Your task to perform on an android device: add a contact Image 0: 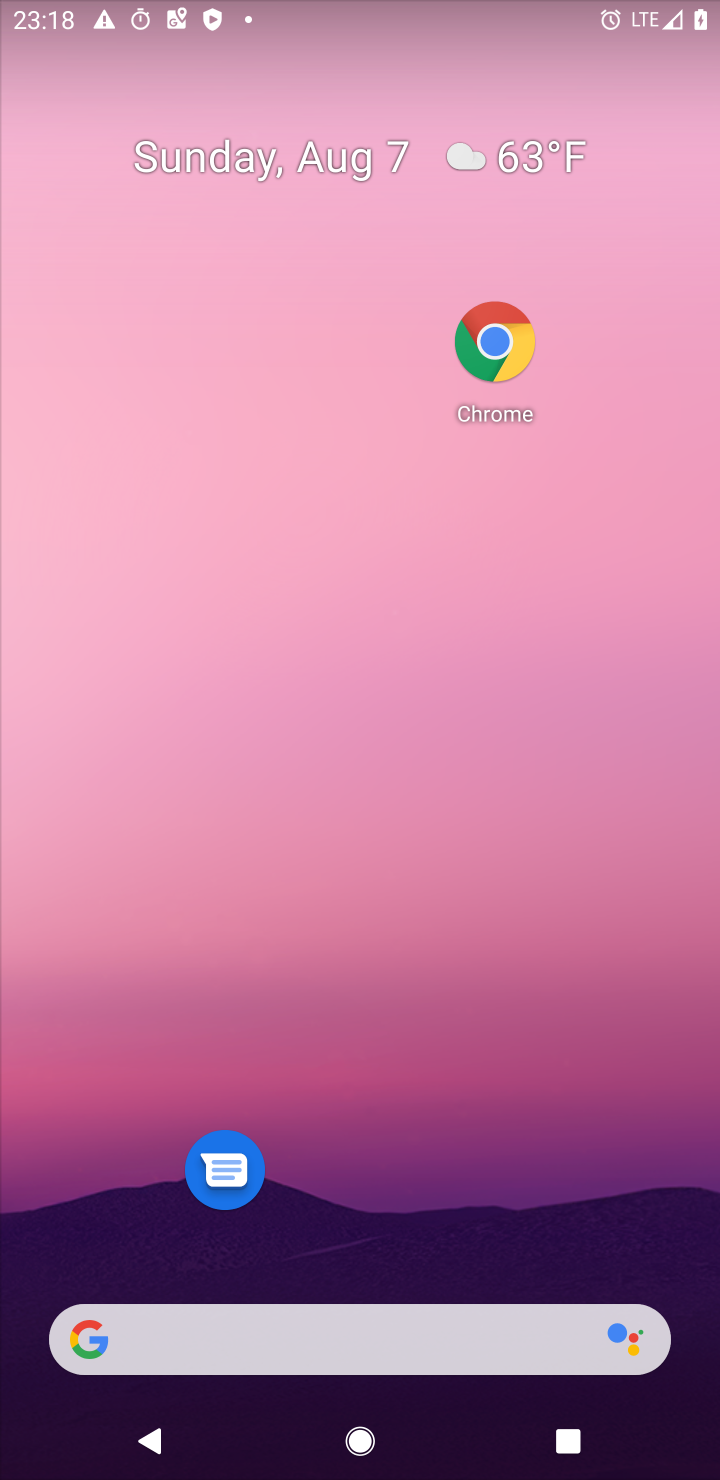
Step 0: drag from (252, 1338) to (391, 35)
Your task to perform on an android device: add a contact Image 1: 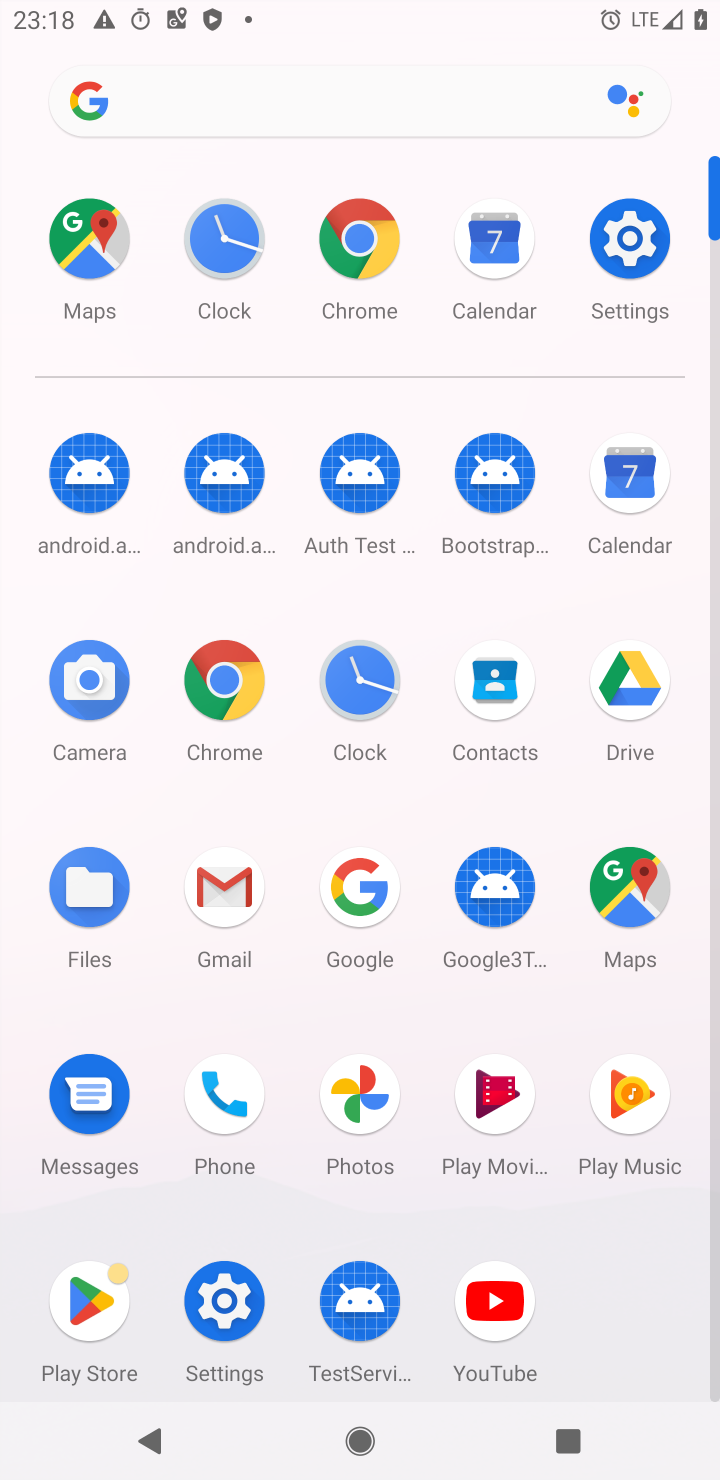
Step 1: click (479, 678)
Your task to perform on an android device: add a contact Image 2: 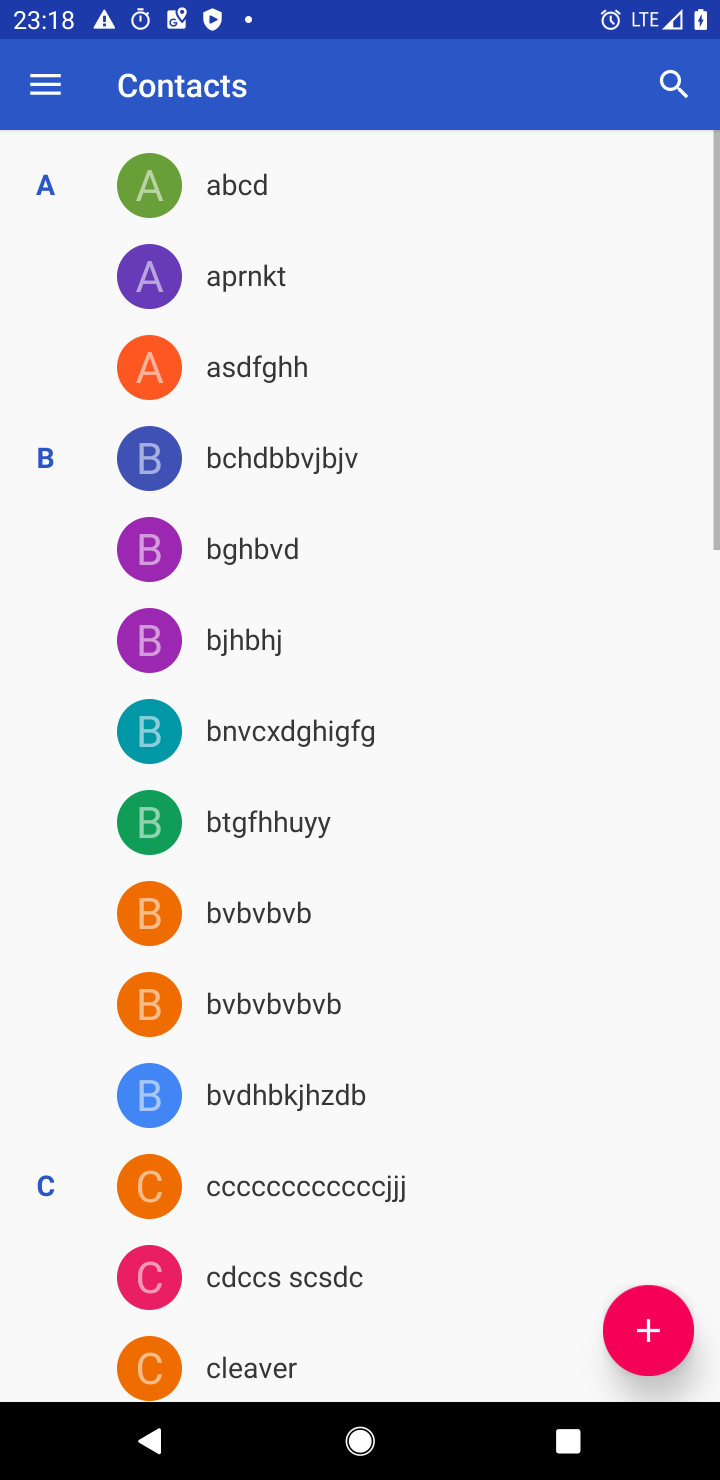
Step 2: click (655, 1314)
Your task to perform on an android device: add a contact Image 3: 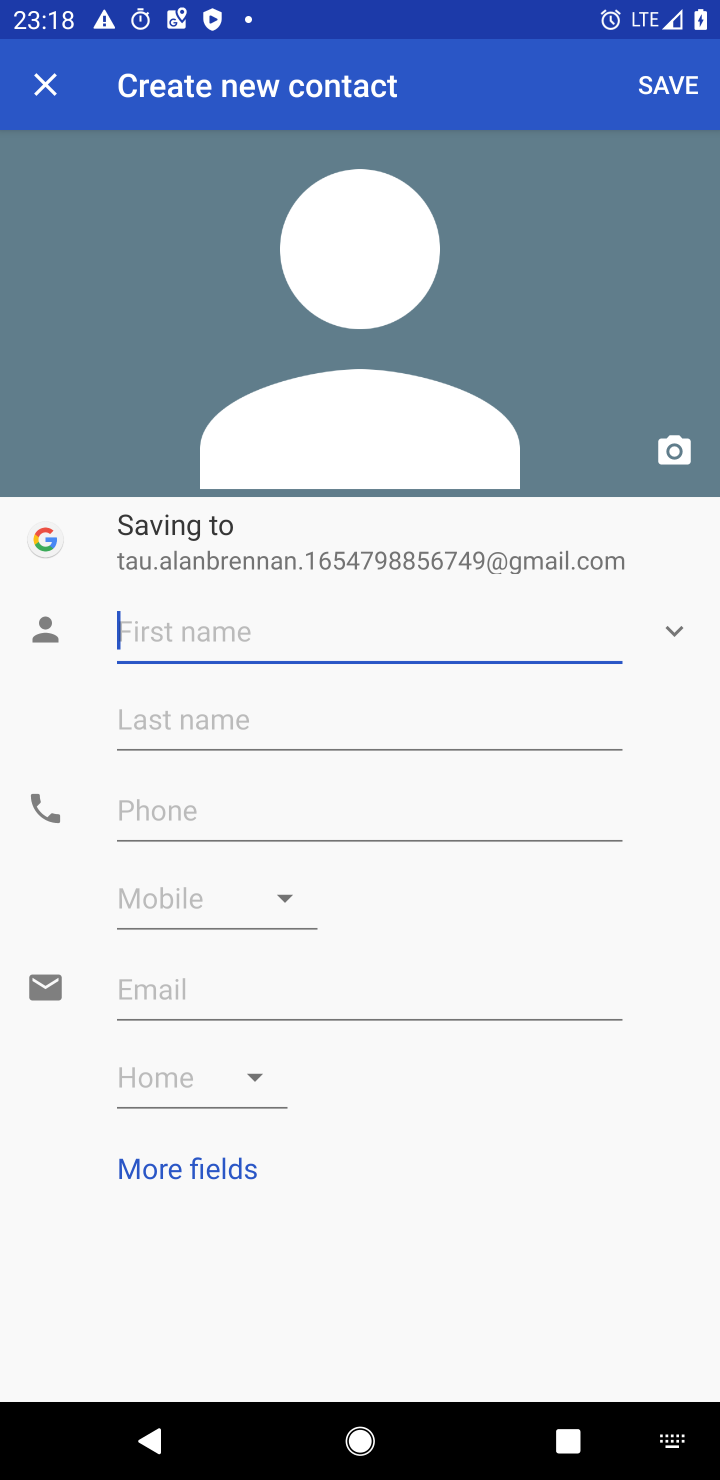
Step 3: type "priya"
Your task to perform on an android device: add a contact Image 4: 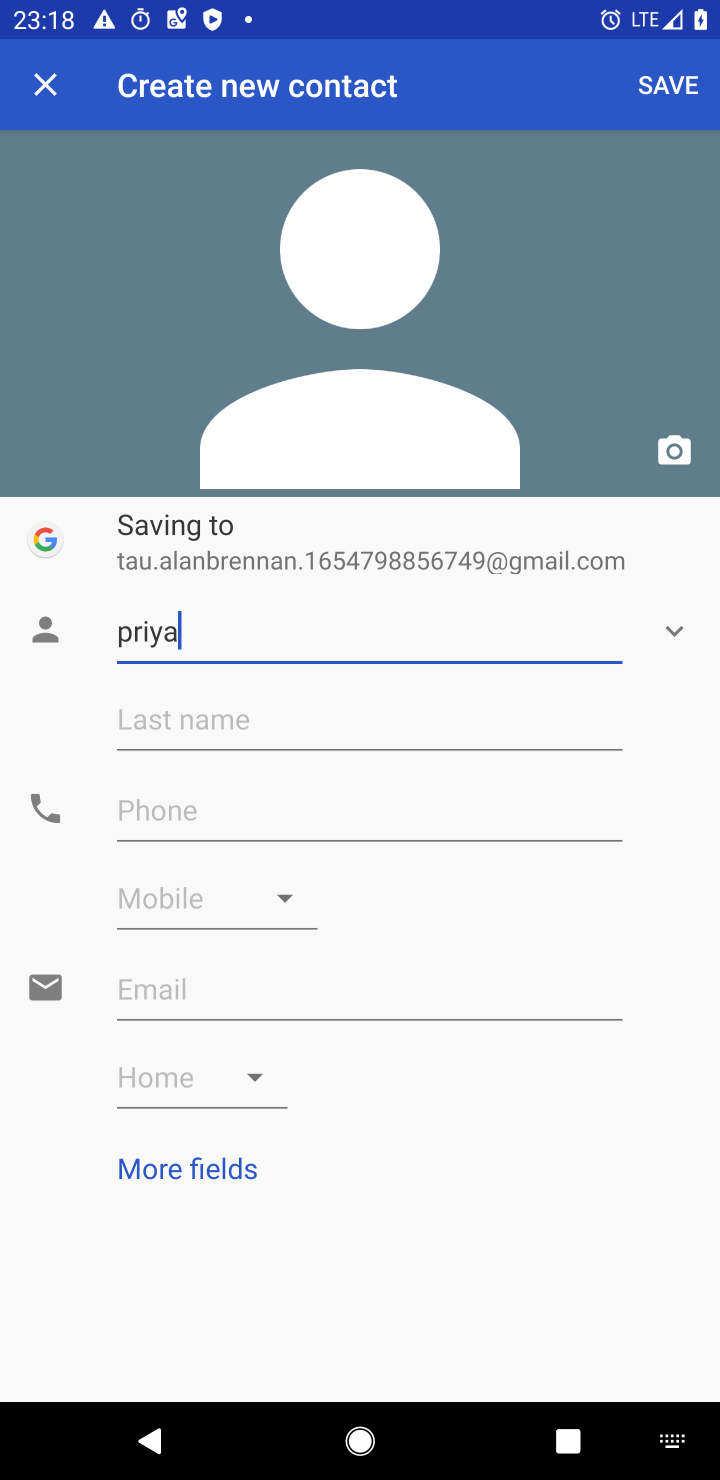
Step 4: click (509, 816)
Your task to perform on an android device: add a contact Image 5: 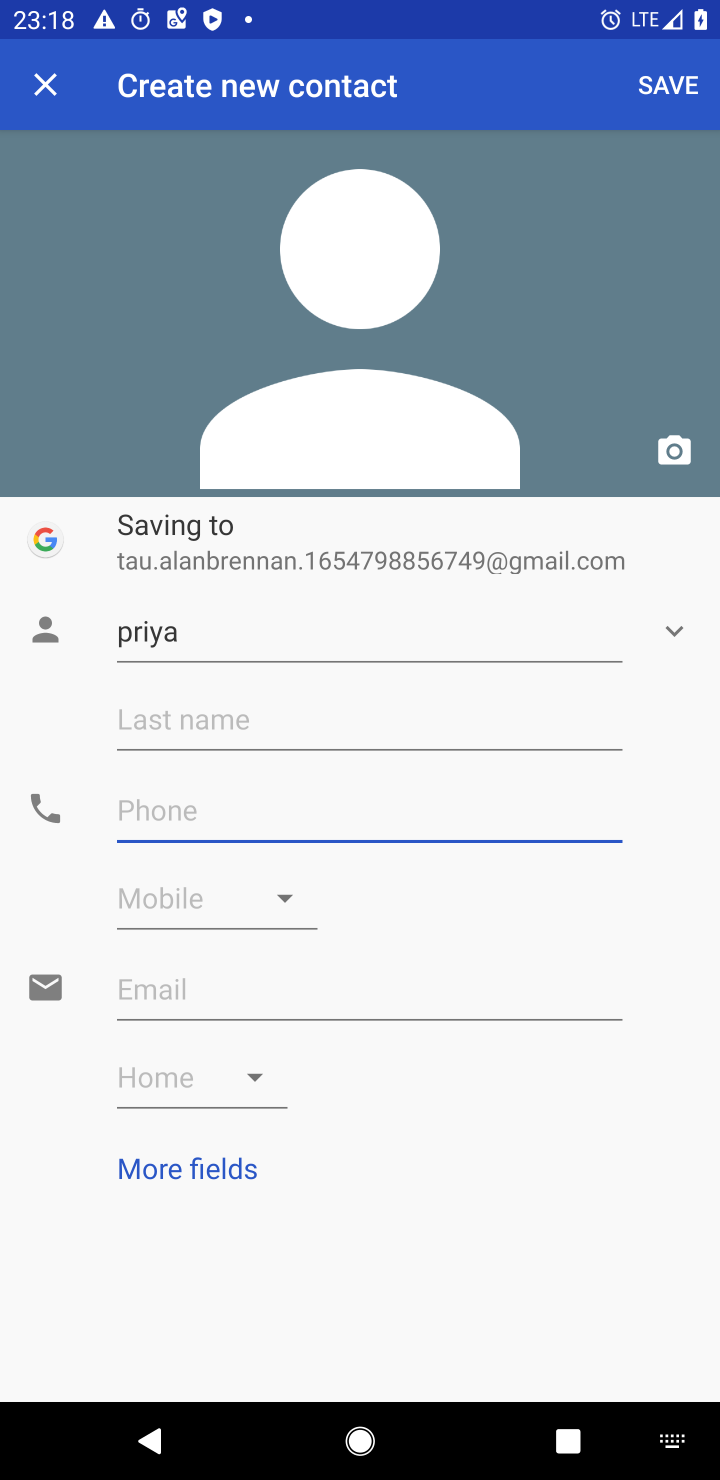
Step 5: type "9045654534"
Your task to perform on an android device: add a contact Image 6: 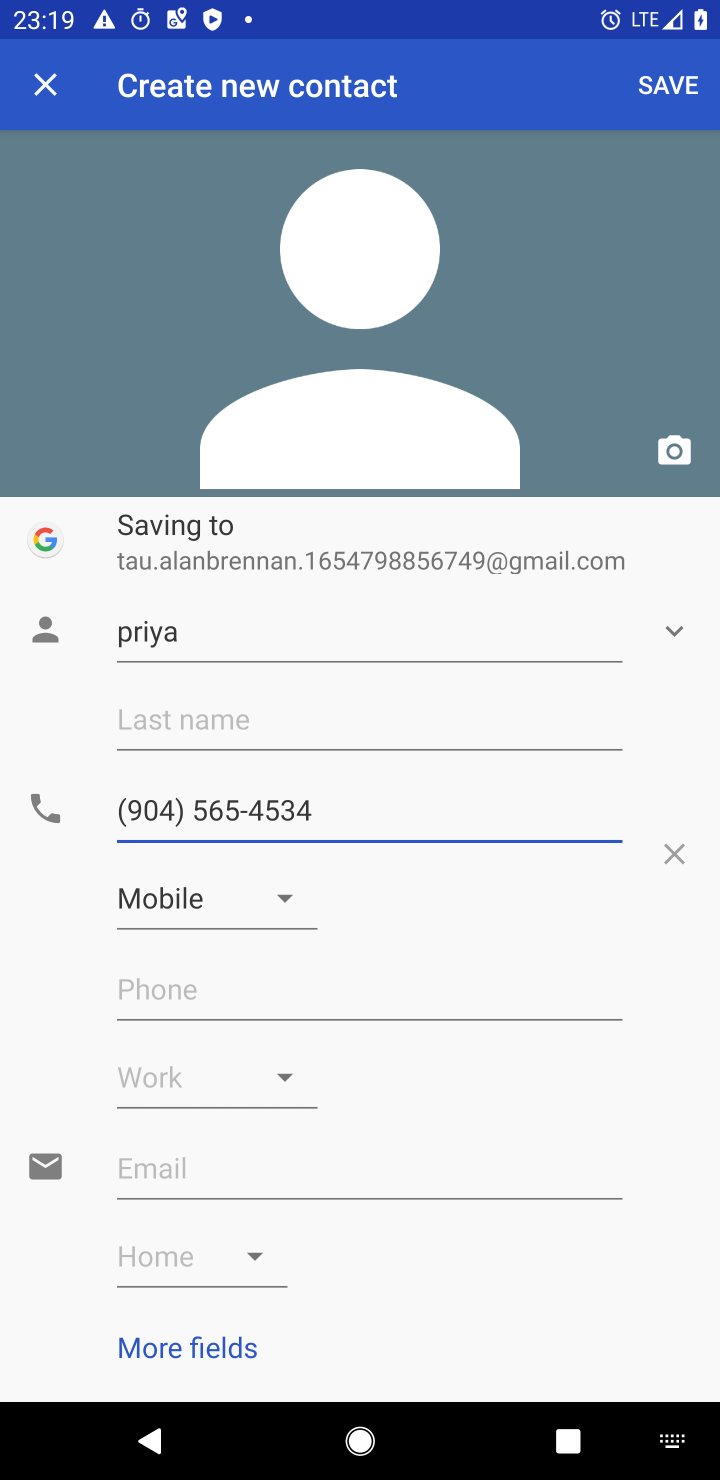
Step 6: click (701, 72)
Your task to perform on an android device: add a contact Image 7: 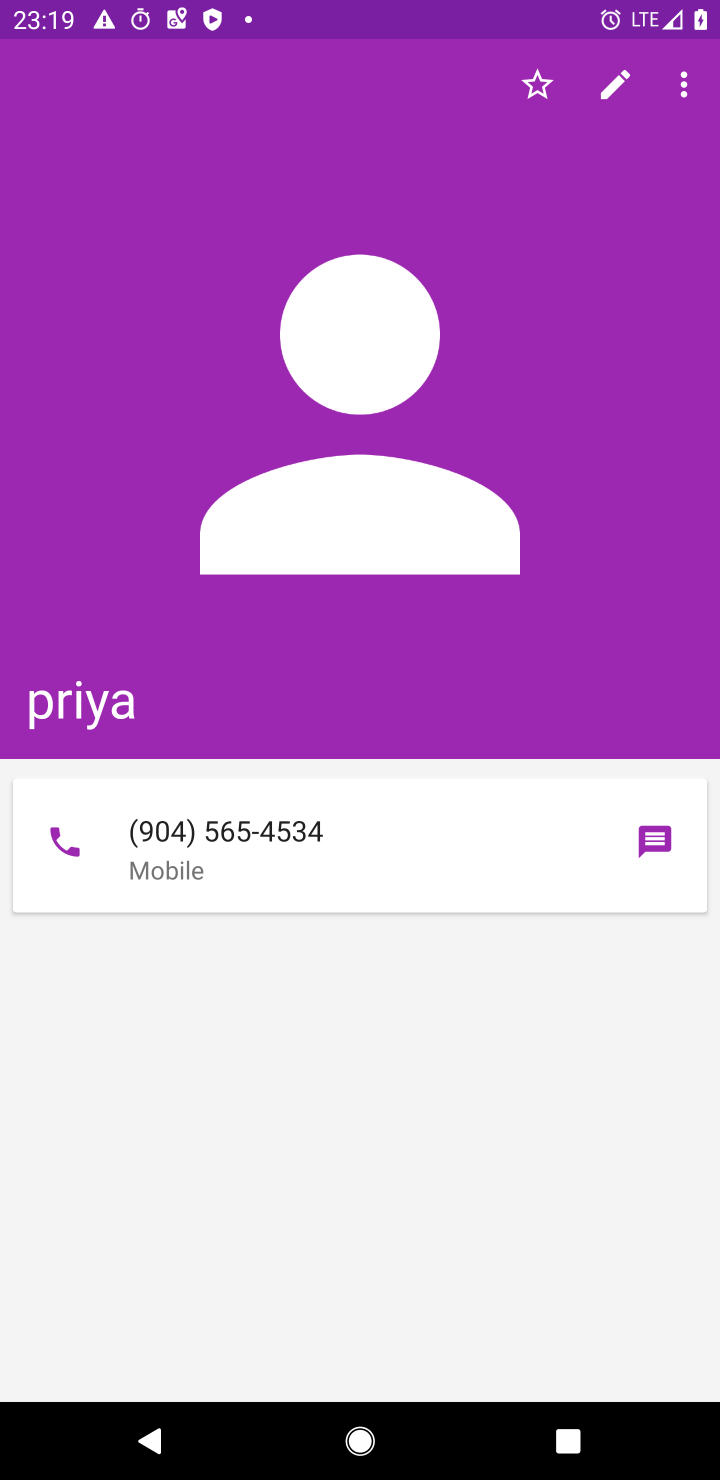
Step 7: task complete